Your task to perform on an android device: Is it going to rain this weekend? Image 0: 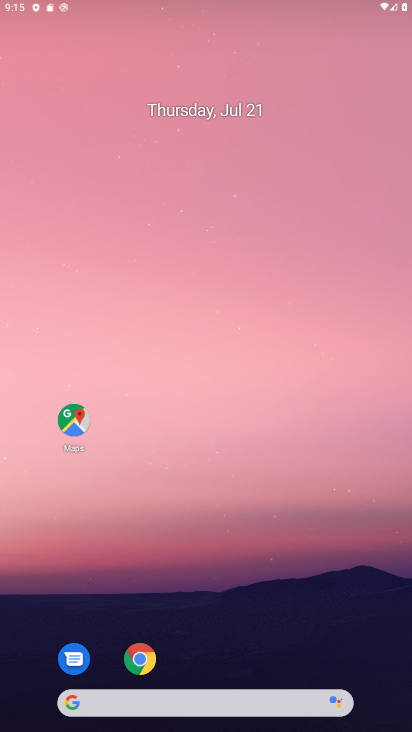
Step 0: drag from (223, 686) to (196, 192)
Your task to perform on an android device: Is it going to rain this weekend? Image 1: 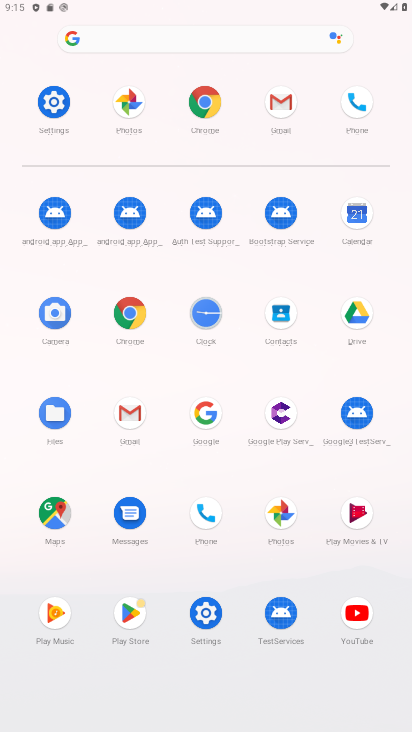
Step 1: click (212, 411)
Your task to perform on an android device: Is it going to rain this weekend? Image 2: 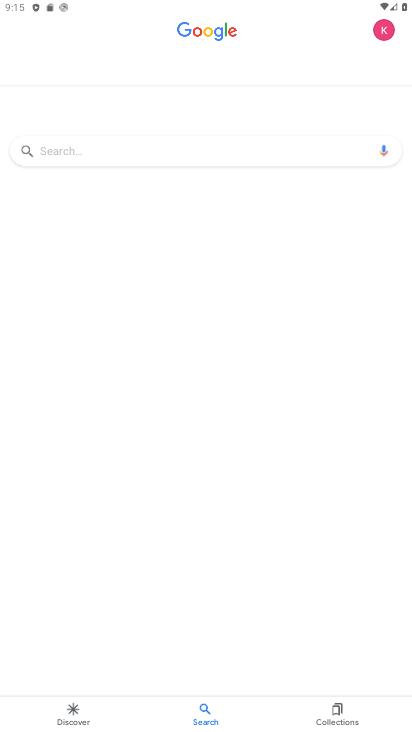
Step 2: click (50, 145)
Your task to perform on an android device: Is it going to rain this weekend? Image 3: 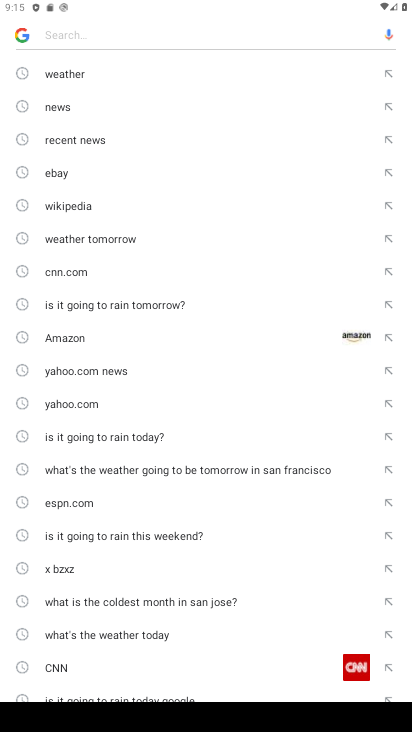
Step 3: click (63, 77)
Your task to perform on an android device: Is it going to rain this weekend? Image 4: 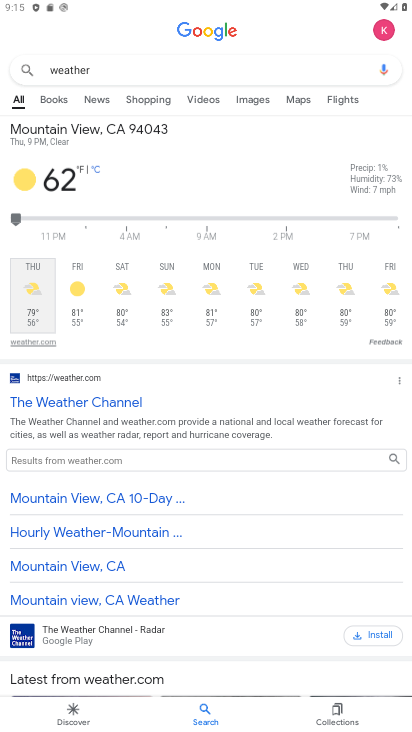
Step 4: task complete